Your task to perform on an android device: turn off sleep mode Image 0: 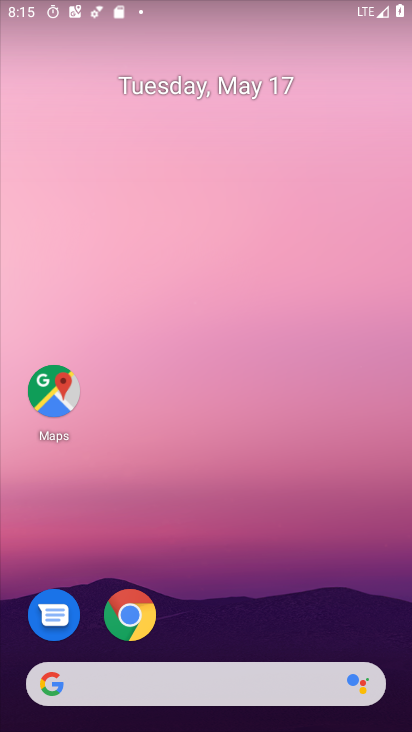
Step 0: drag from (225, 607) to (228, 151)
Your task to perform on an android device: turn off sleep mode Image 1: 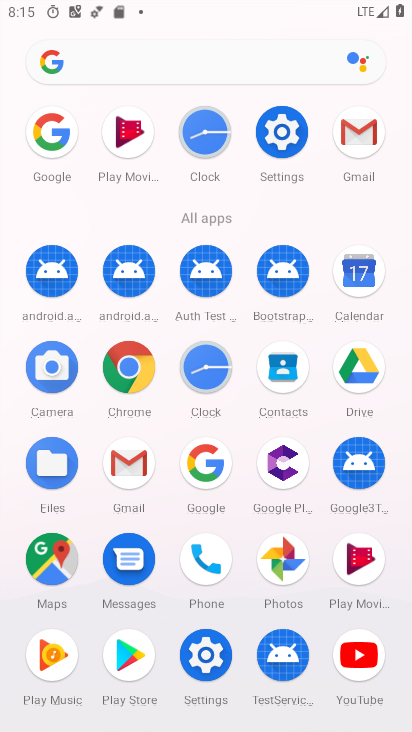
Step 1: click (284, 143)
Your task to perform on an android device: turn off sleep mode Image 2: 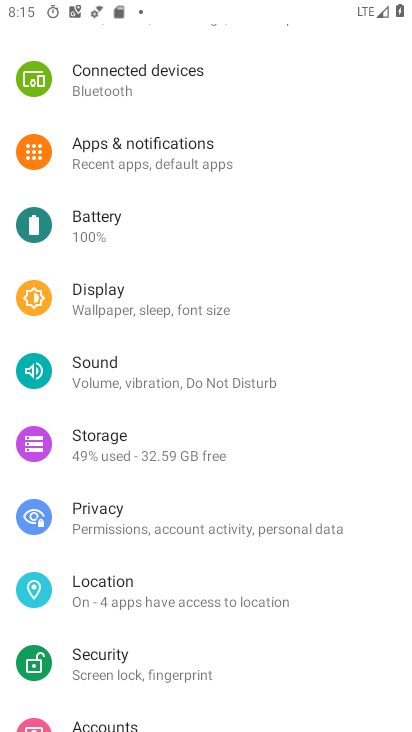
Step 2: click (125, 301)
Your task to perform on an android device: turn off sleep mode Image 3: 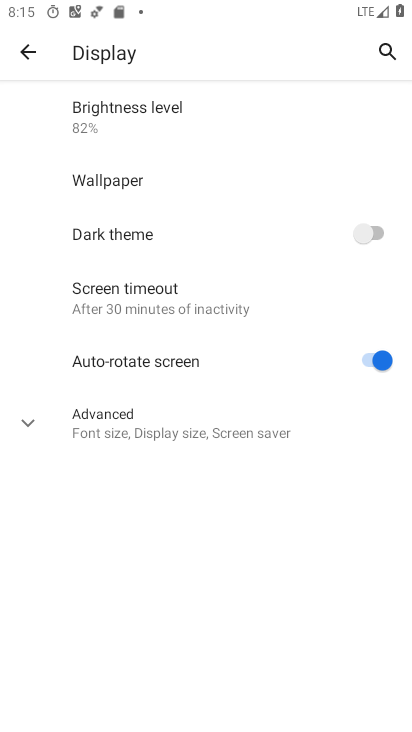
Step 3: click (37, 424)
Your task to perform on an android device: turn off sleep mode Image 4: 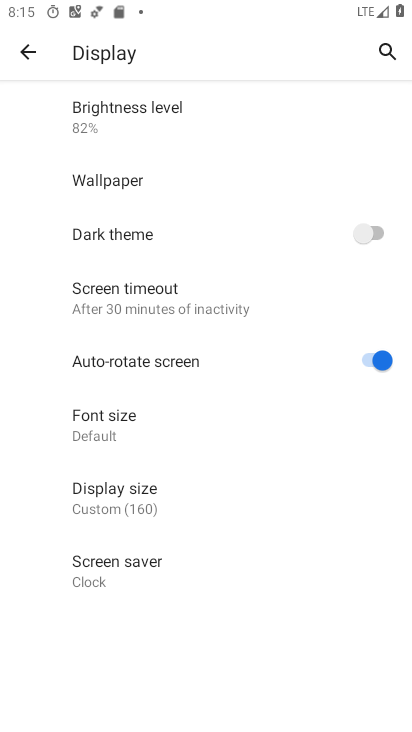
Step 4: task complete